Your task to perform on an android device: How much does a 2 bedroom apartment rent for in San Francisco? Image 0: 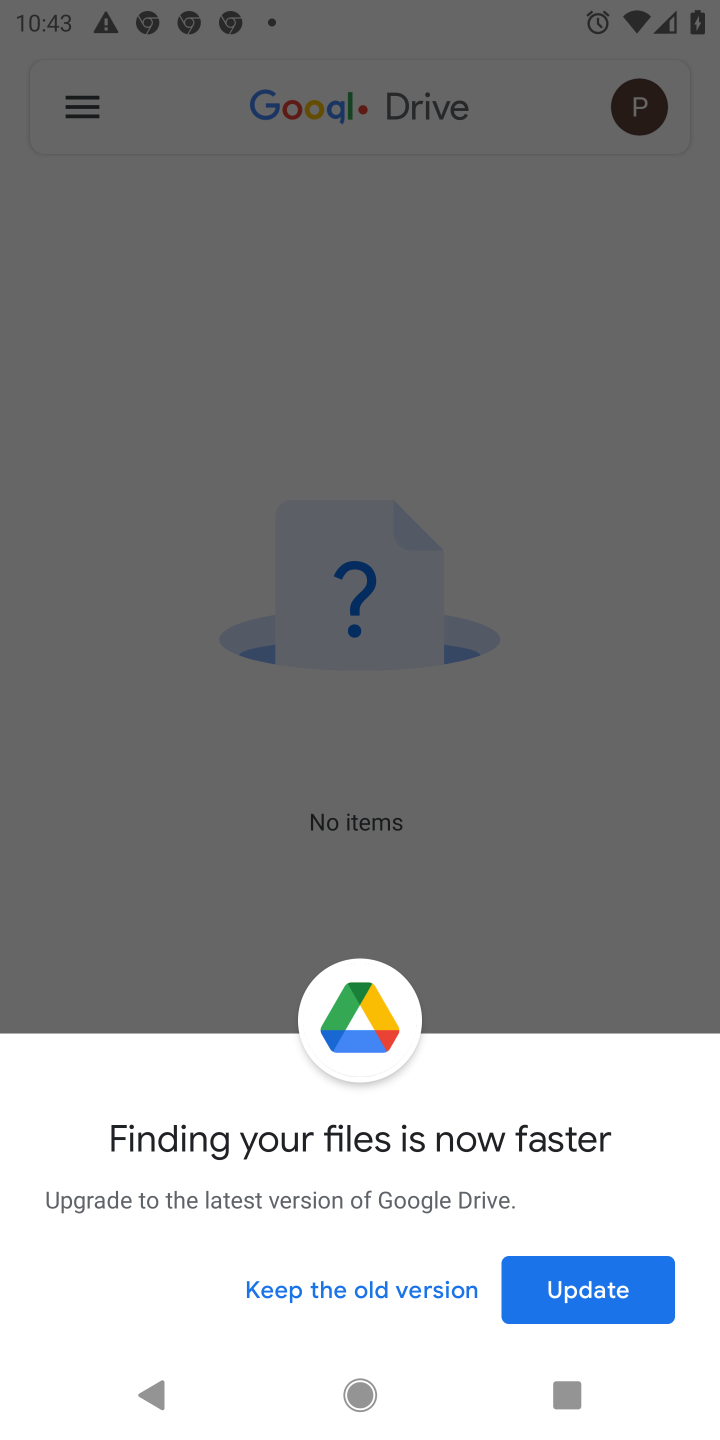
Step 0: press home button
Your task to perform on an android device: How much does a 2 bedroom apartment rent for in San Francisco? Image 1: 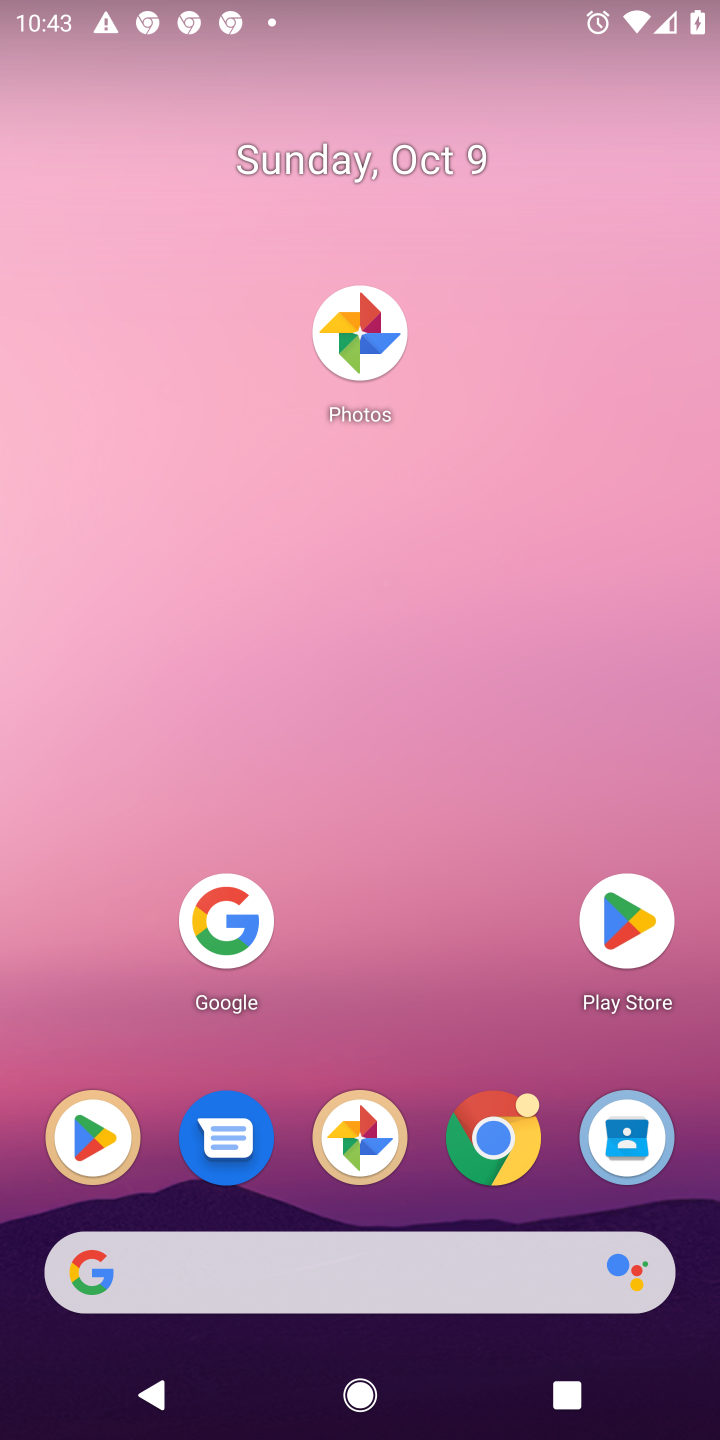
Step 1: click (212, 942)
Your task to perform on an android device: How much does a 2 bedroom apartment rent for in San Francisco? Image 2: 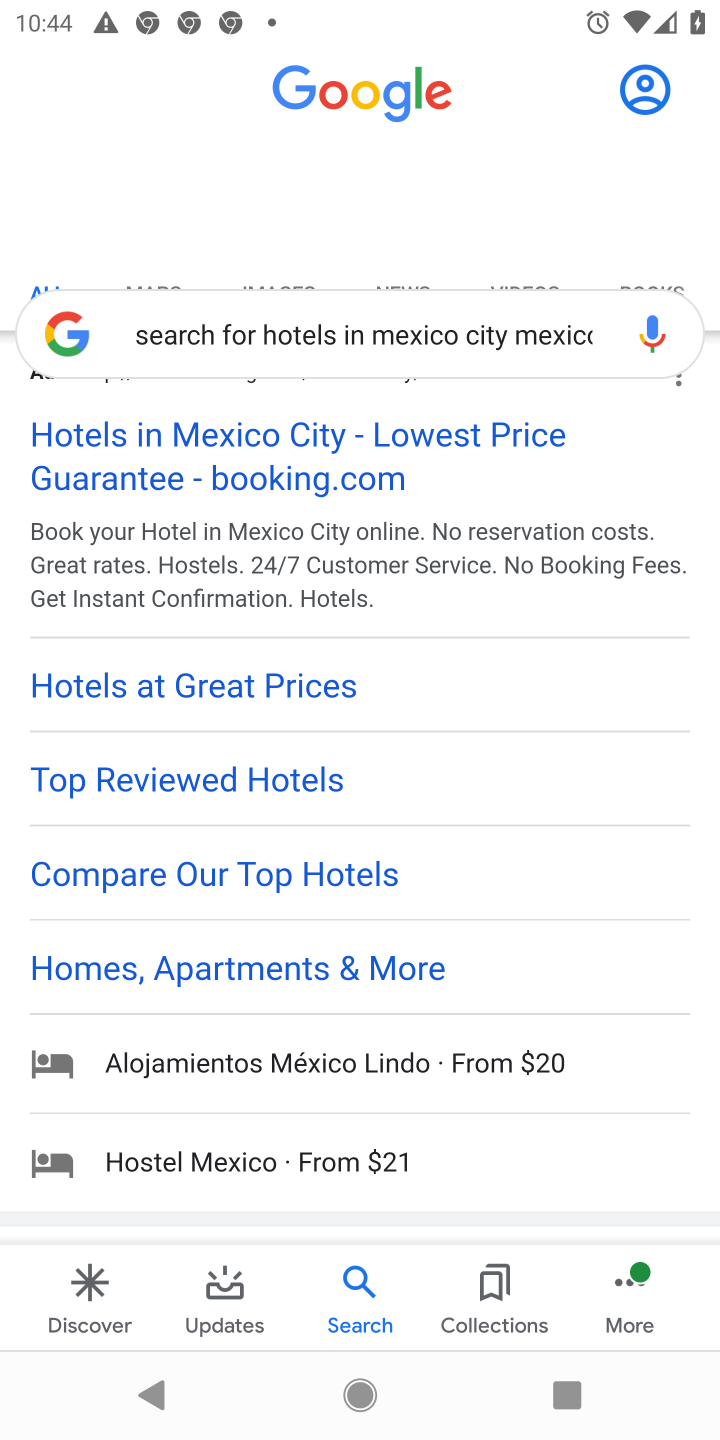
Step 2: click (468, 331)
Your task to perform on an android device: How much does a 2 bedroom apartment rent for in San Francisco? Image 3: 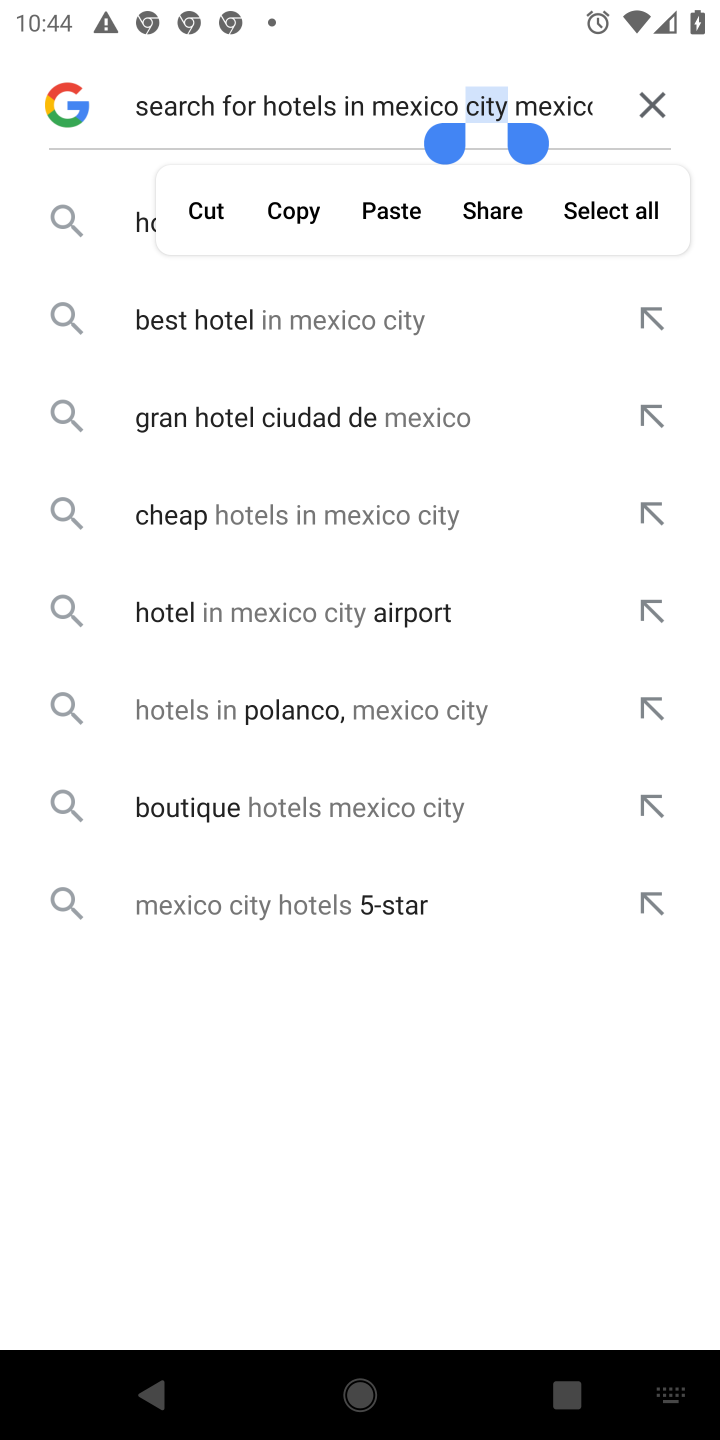
Step 3: click (650, 95)
Your task to perform on an android device: How much does a 2 bedroom apartment rent for in San Francisco? Image 4: 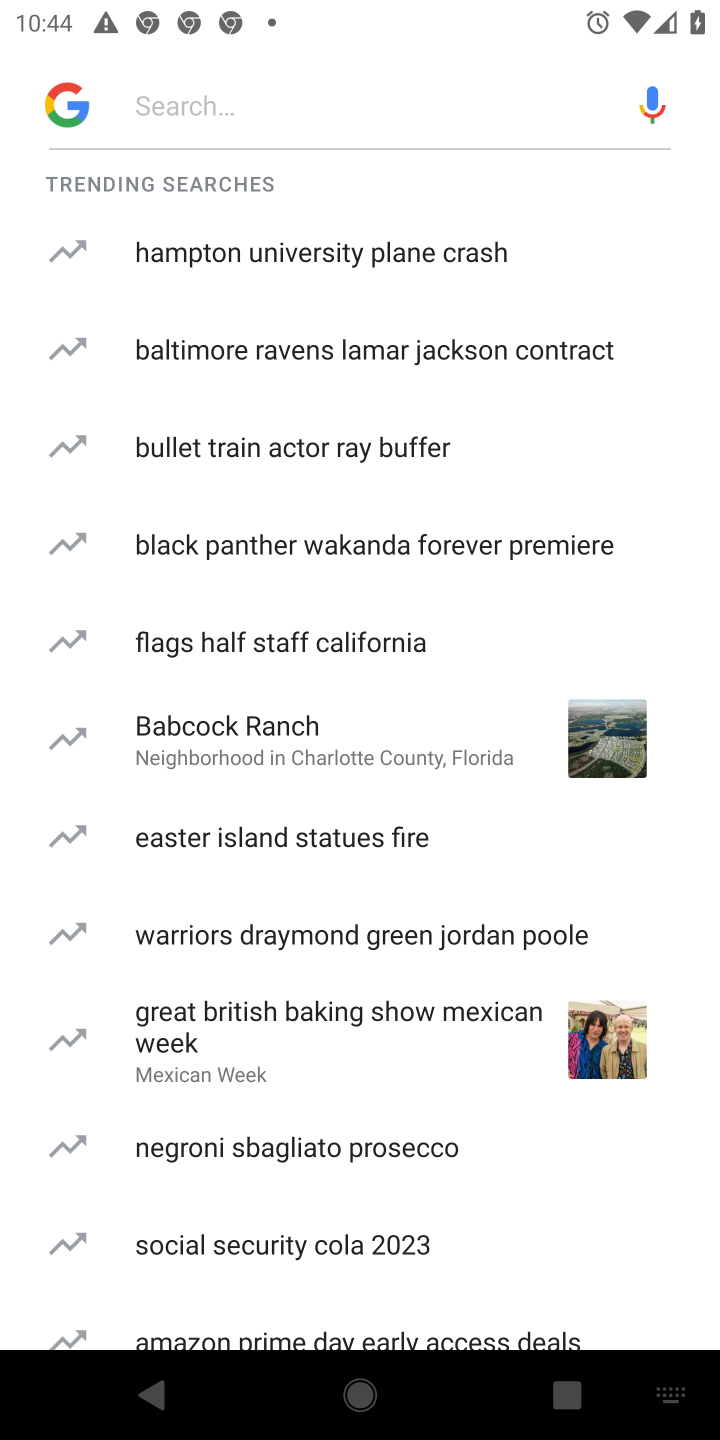
Step 4: click (10, 1437)
Your task to perform on an android device: How much does a 2 bedroom apartment rent for in San Francisco? Image 5: 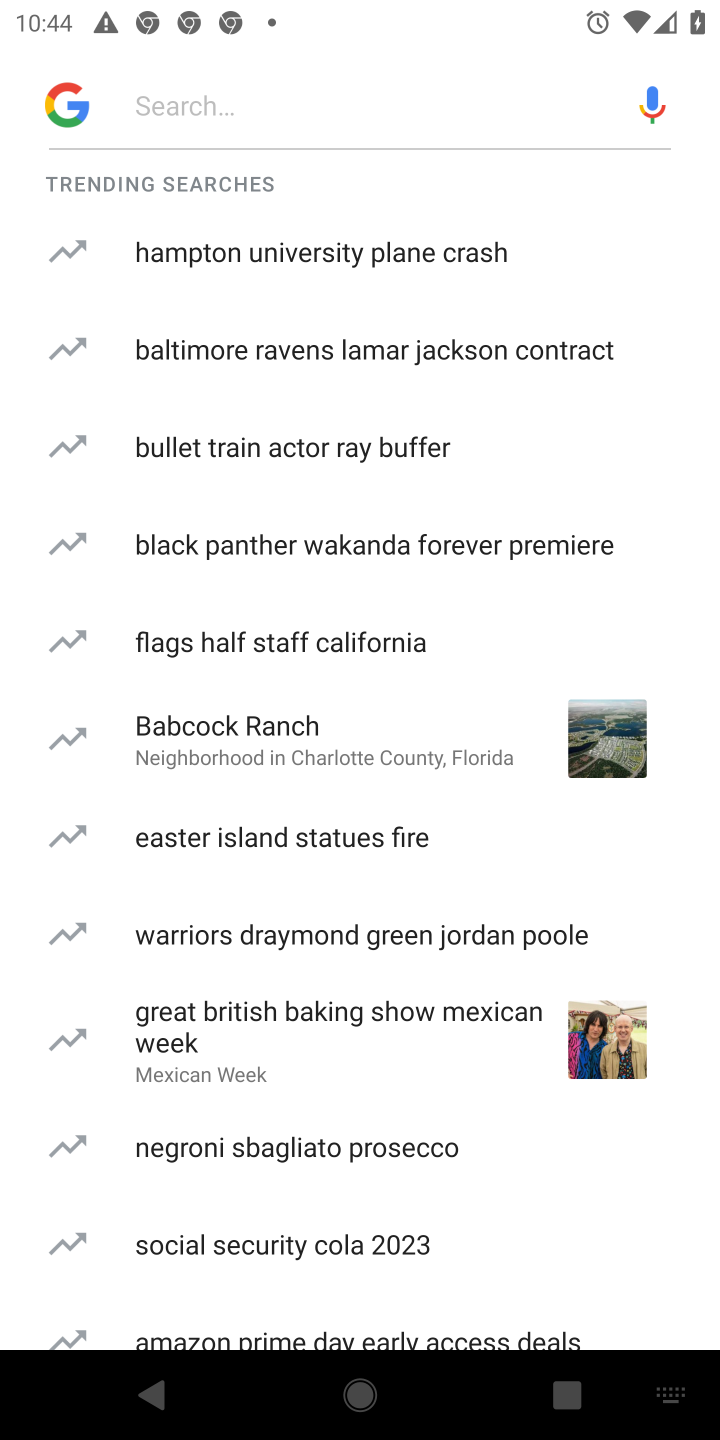
Step 5: click (374, 100)
Your task to perform on an android device: How much does a 2 bedroom apartment rent for in San Francisco? Image 6: 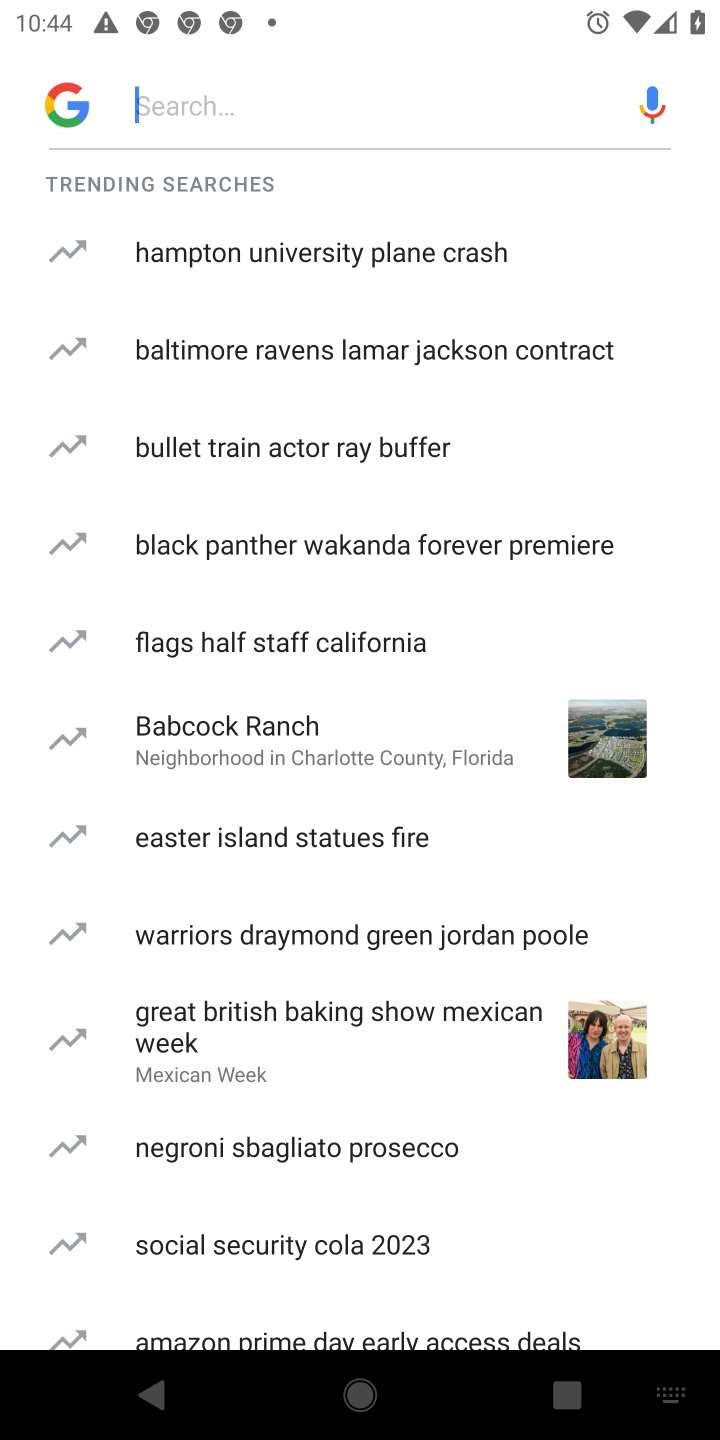
Step 6: type "How much does a 2 bedroom apartment rent for in San Francisco? "
Your task to perform on an android device: How much does a 2 bedroom apartment rent for in San Francisco? Image 7: 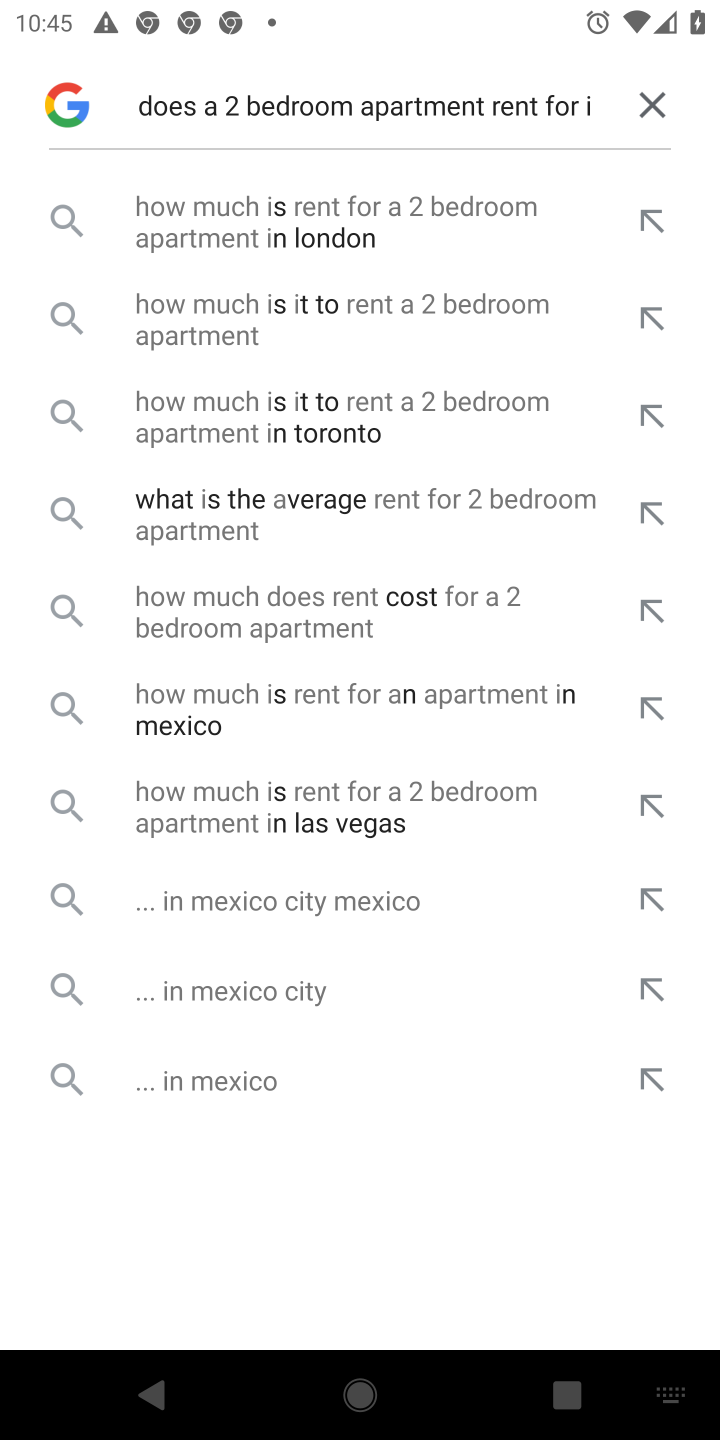
Step 7: click (300, 215)
Your task to perform on an android device: How much does a 2 bedroom apartment rent for in San Francisco? Image 8: 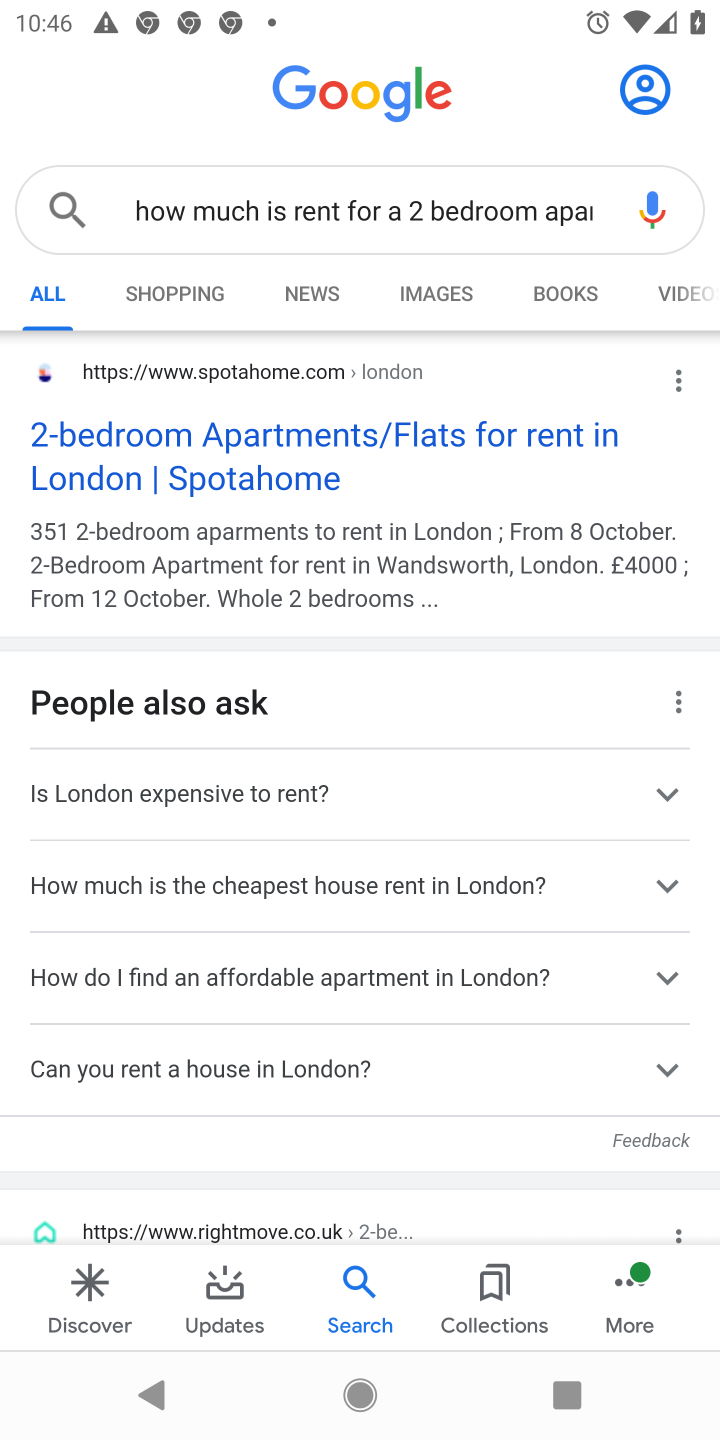
Step 8: click (240, 445)
Your task to perform on an android device: How much does a 2 bedroom apartment rent for in San Francisco? Image 9: 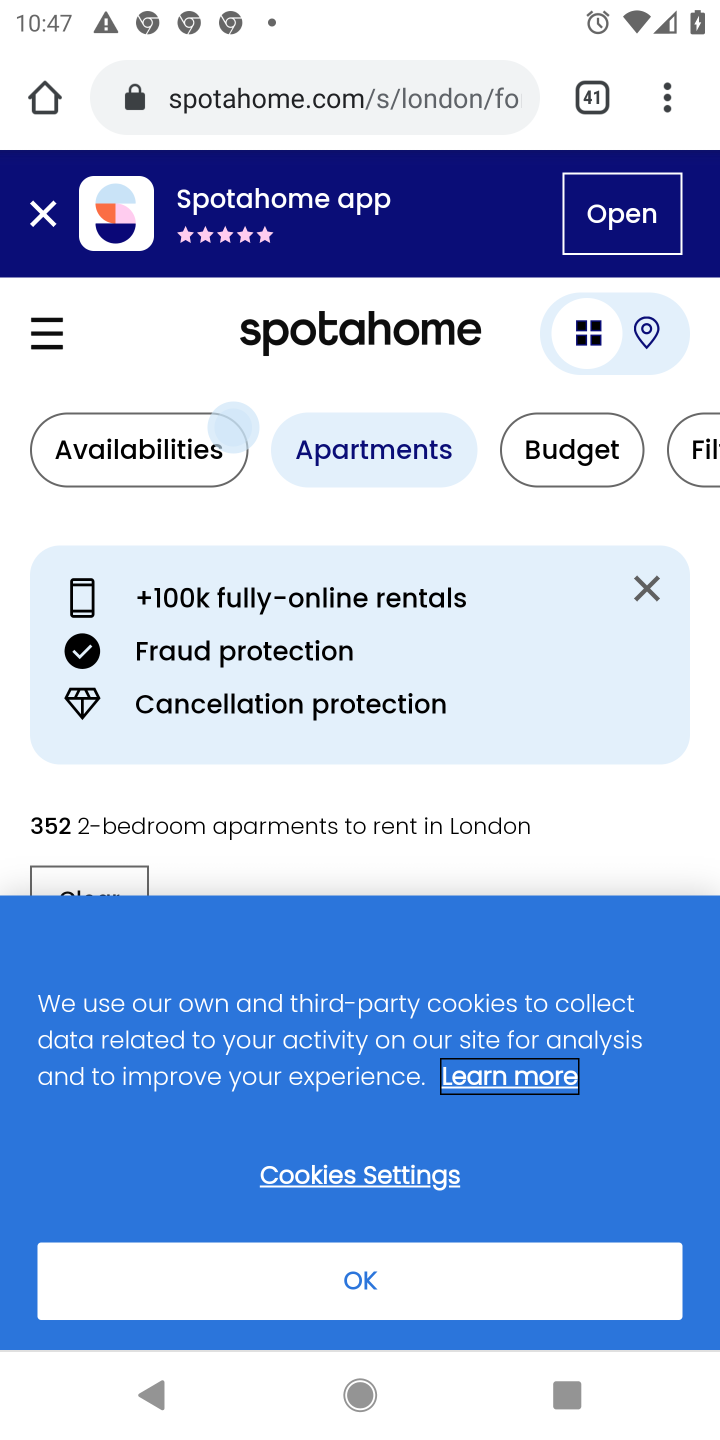
Step 9: drag from (362, 911) to (370, 509)
Your task to perform on an android device: How much does a 2 bedroom apartment rent for in San Francisco? Image 10: 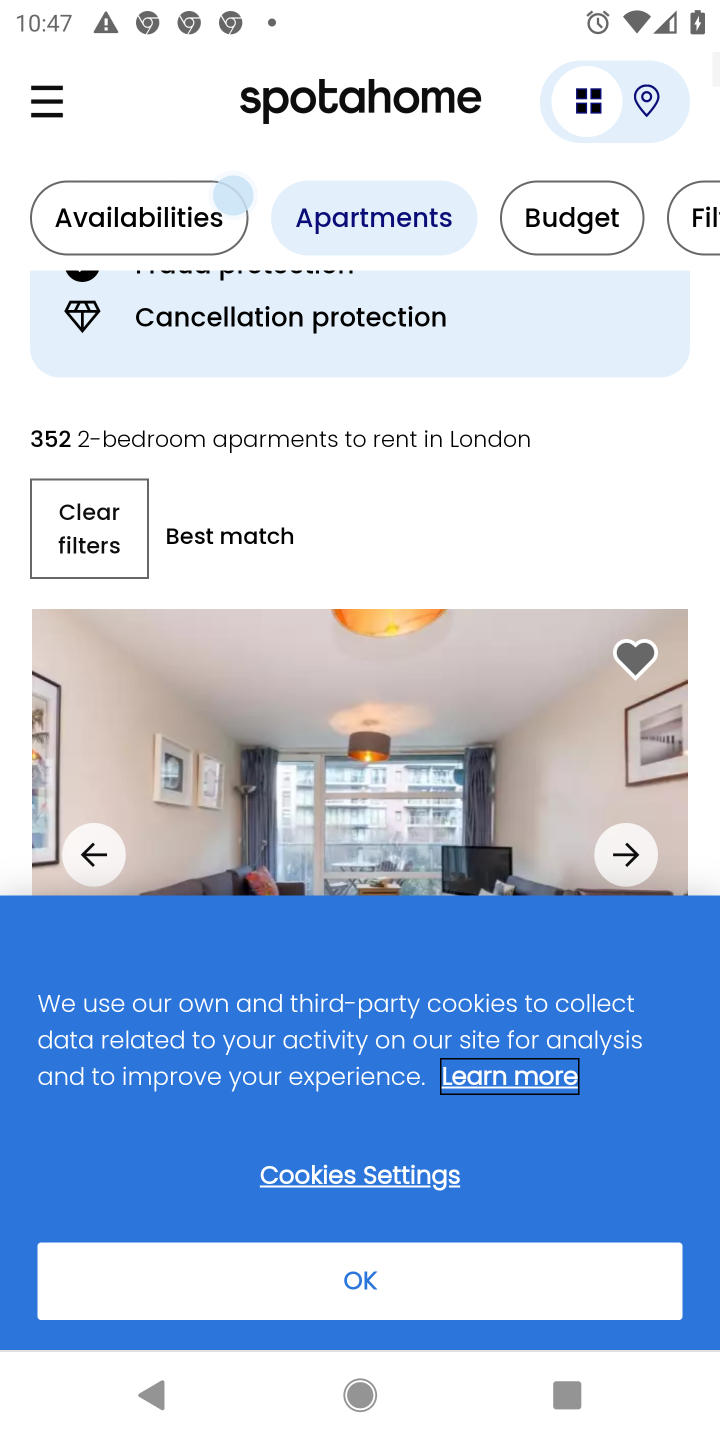
Step 10: click (413, 1280)
Your task to perform on an android device: How much does a 2 bedroom apartment rent for in San Francisco? Image 11: 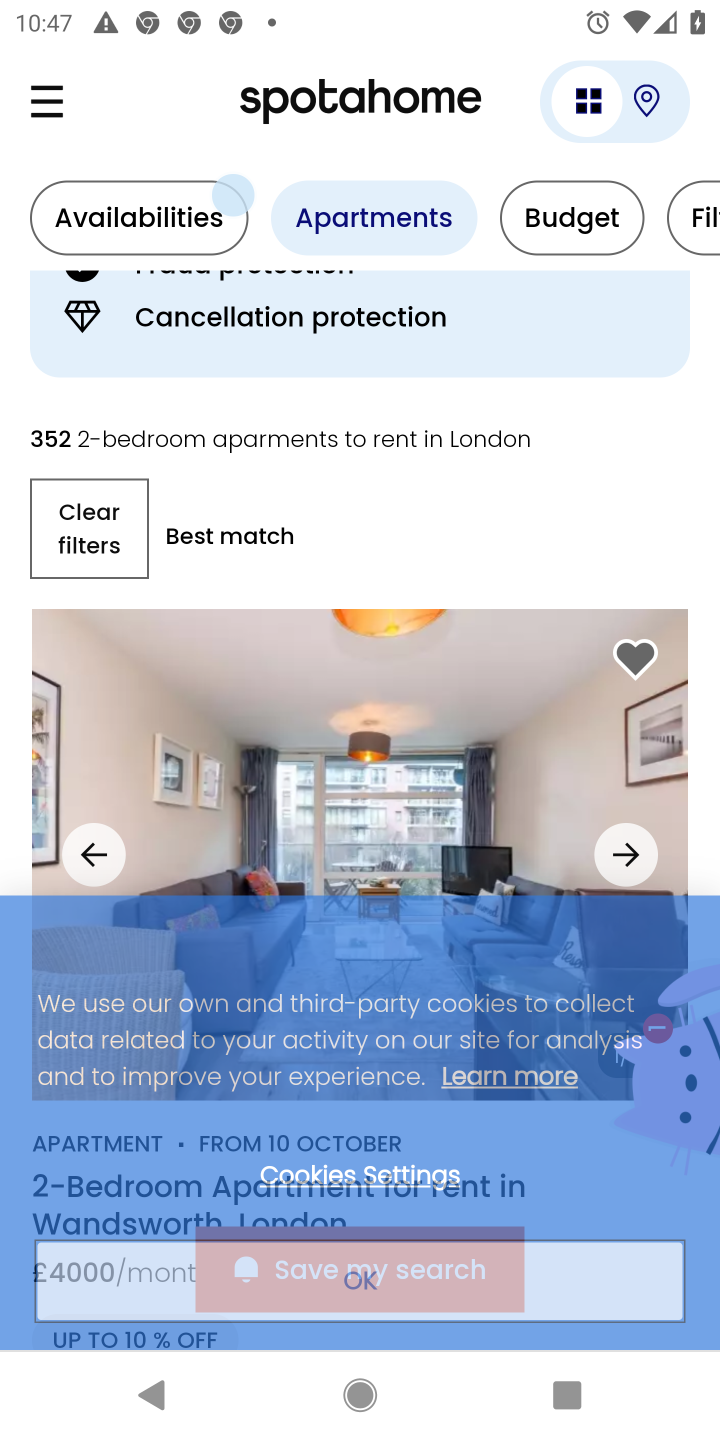
Step 11: task complete